Your task to perform on an android device: turn on bluetooth scan Image 0: 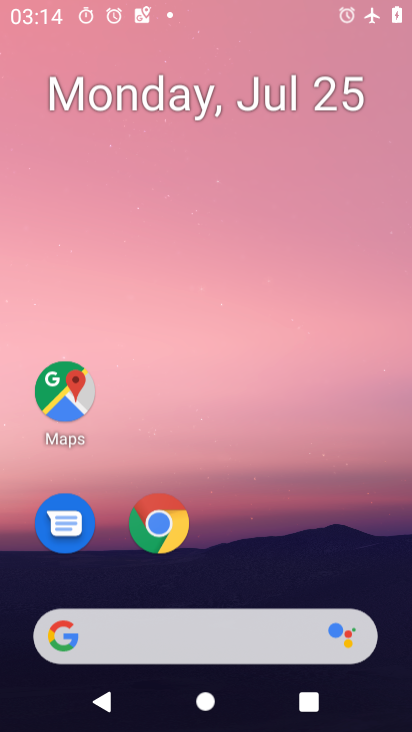
Step 0: press home button
Your task to perform on an android device: turn on bluetooth scan Image 1: 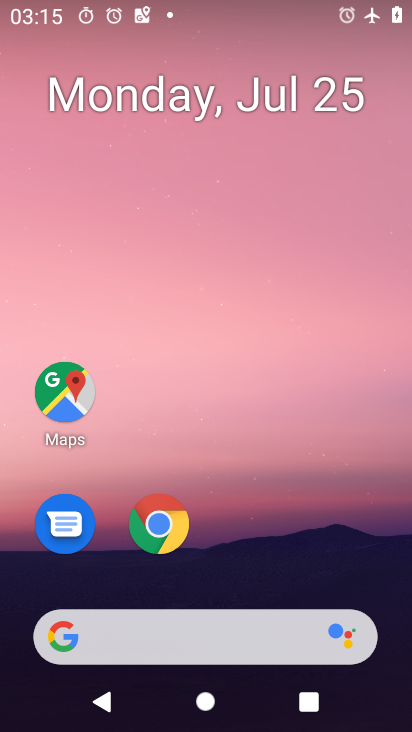
Step 1: drag from (292, 564) to (285, 85)
Your task to perform on an android device: turn on bluetooth scan Image 2: 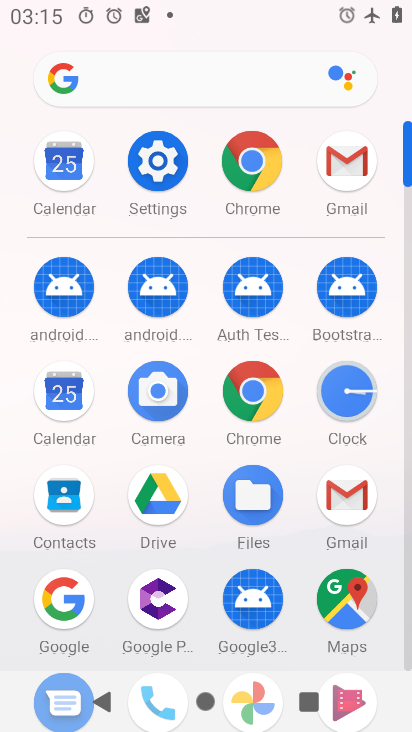
Step 2: click (145, 162)
Your task to perform on an android device: turn on bluetooth scan Image 3: 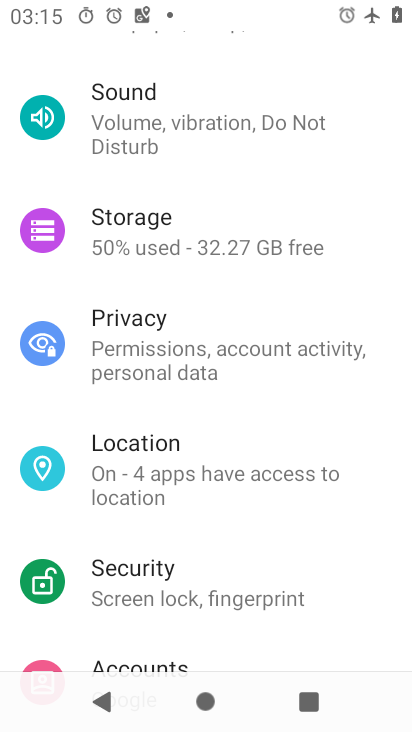
Step 3: click (138, 476)
Your task to perform on an android device: turn on bluetooth scan Image 4: 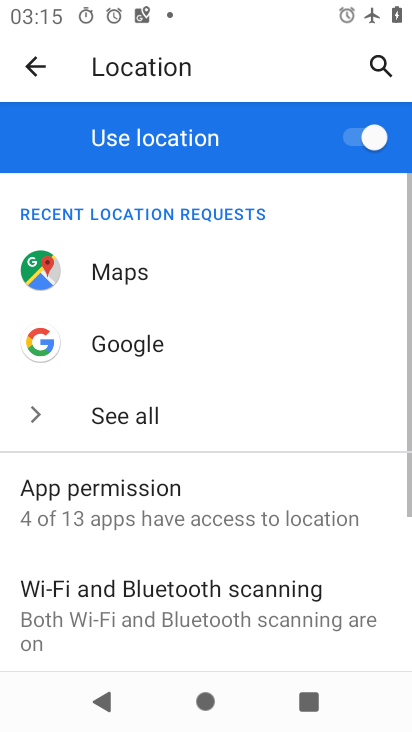
Step 4: click (141, 625)
Your task to perform on an android device: turn on bluetooth scan Image 5: 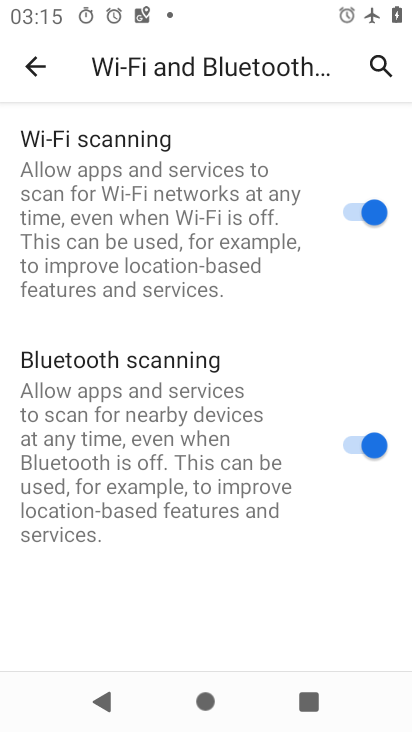
Step 5: task complete